Your task to perform on an android device: What's the weather today? Image 0: 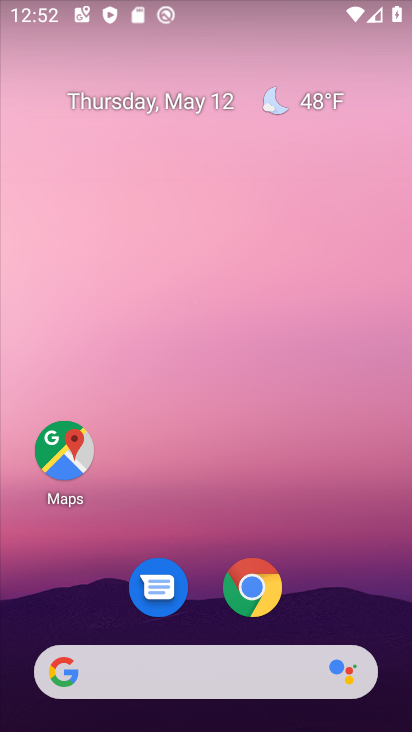
Step 0: drag from (273, 624) to (356, 95)
Your task to perform on an android device: What's the weather today? Image 1: 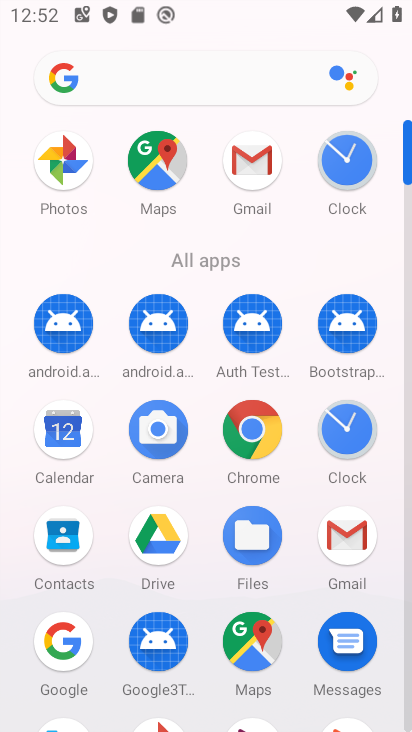
Step 1: drag from (217, 492) to (282, 150)
Your task to perform on an android device: What's the weather today? Image 2: 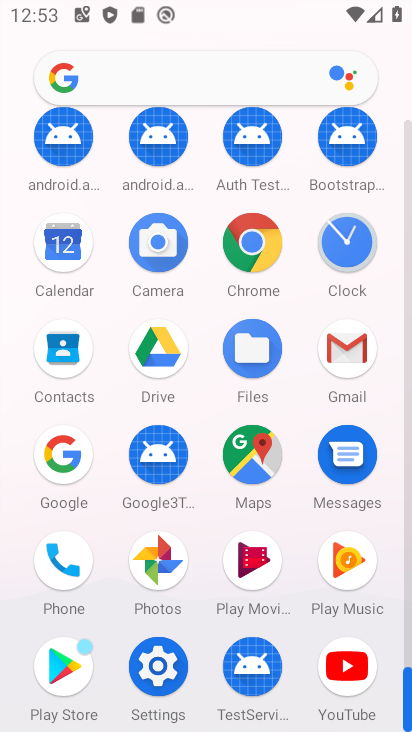
Step 2: click (67, 472)
Your task to perform on an android device: What's the weather today? Image 3: 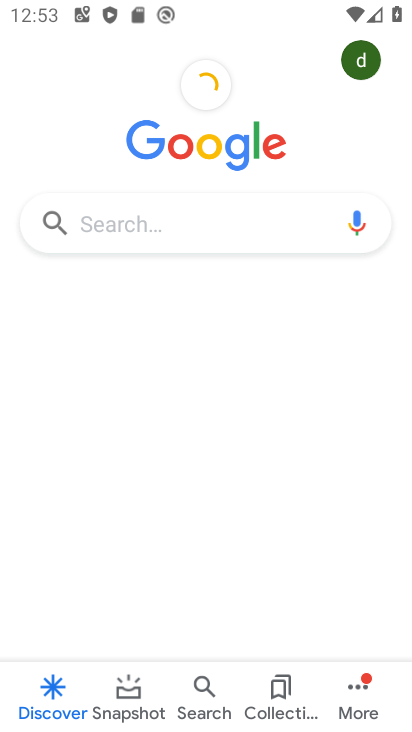
Step 3: click (132, 230)
Your task to perform on an android device: What's the weather today? Image 4: 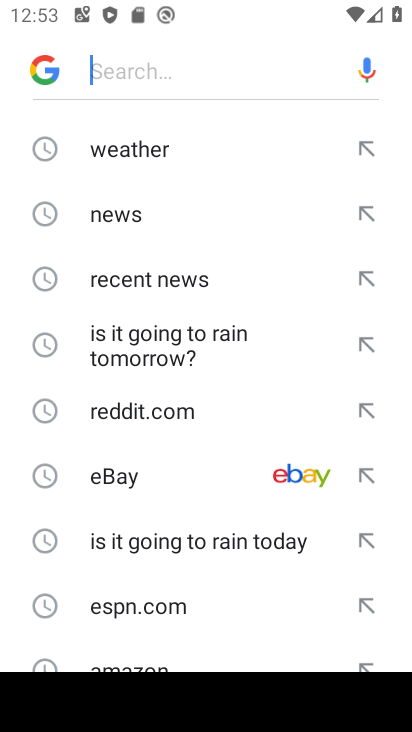
Step 4: click (171, 157)
Your task to perform on an android device: What's the weather today? Image 5: 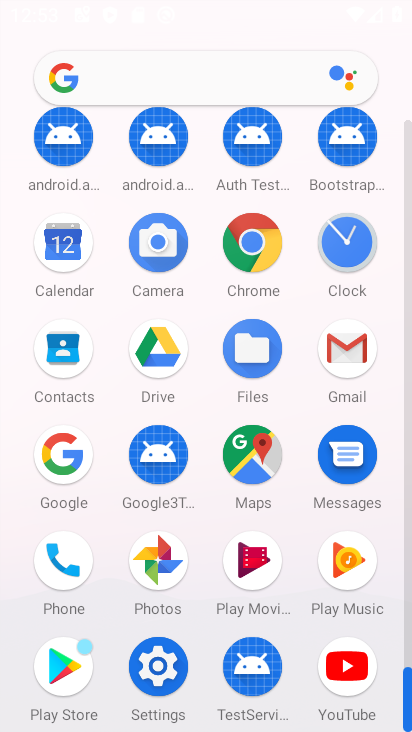
Step 5: task complete